Your task to perform on an android device: Go to CNN.com Image 0: 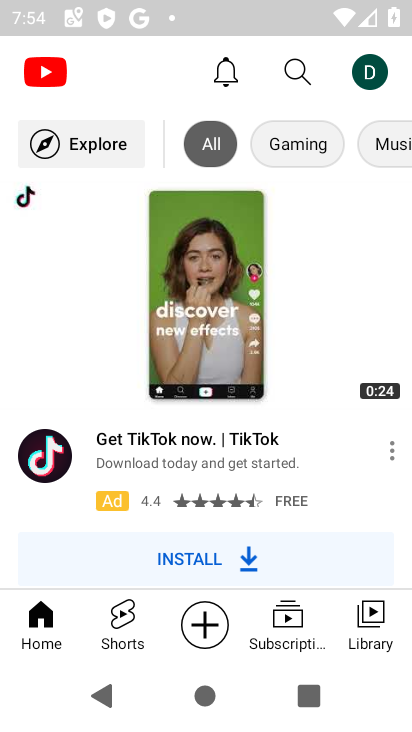
Step 0: press back button
Your task to perform on an android device: Go to CNN.com Image 1: 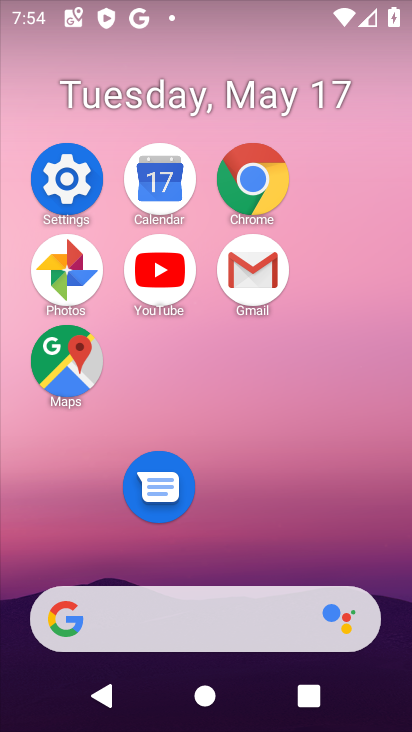
Step 1: click (268, 182)
Your task to perform on an android device: Go to CNN.com Image 2: 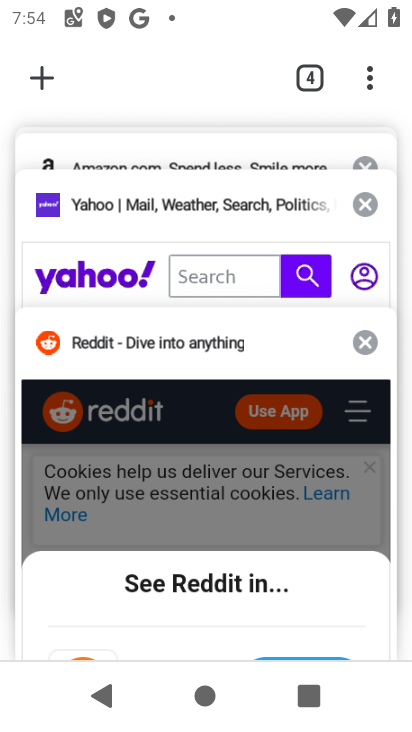
Step 2: click (29, 73)
Your task to perform on an android device: Go to CNN.com Image 3: 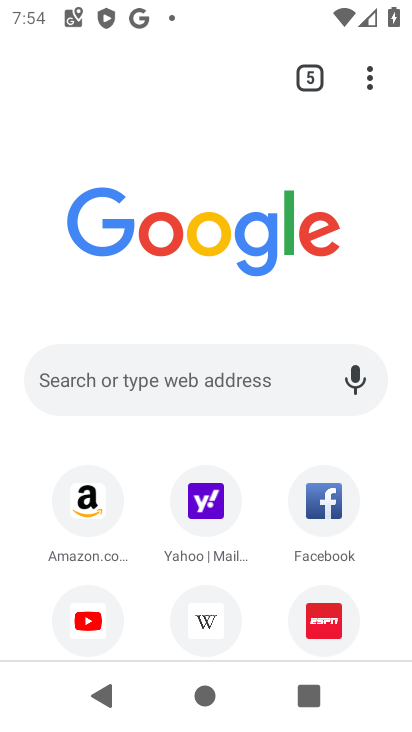
Step 3: click (125, 387)
Your task to perform on an android device: Go to CNN.com Image 4: 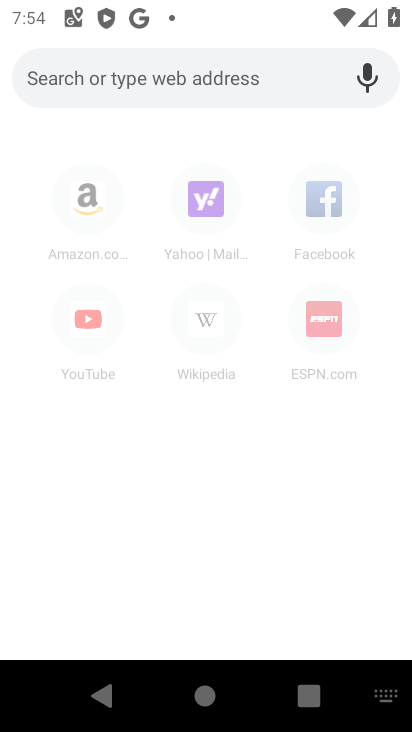
Step 4: type "cnn"
Your task to perform on an android device: Go to CNN.com Image 5: 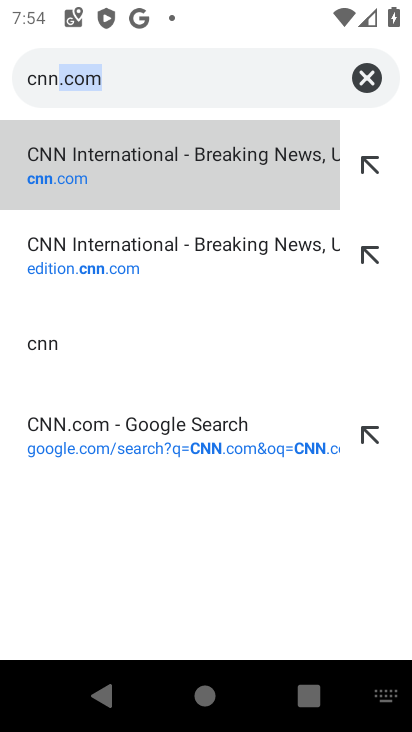
Step 5: click (43, 176)
Your task to perform on an android device: Go to CNN.com Image 6: 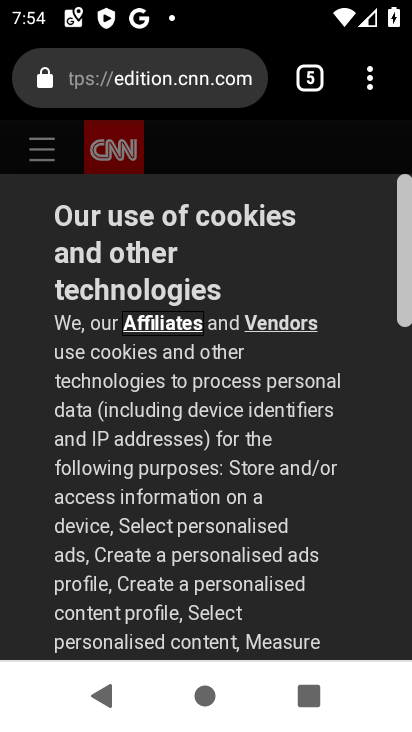
Step 6: task complete